Your task to perform on an android device: Open Yahoo.com Image 0: 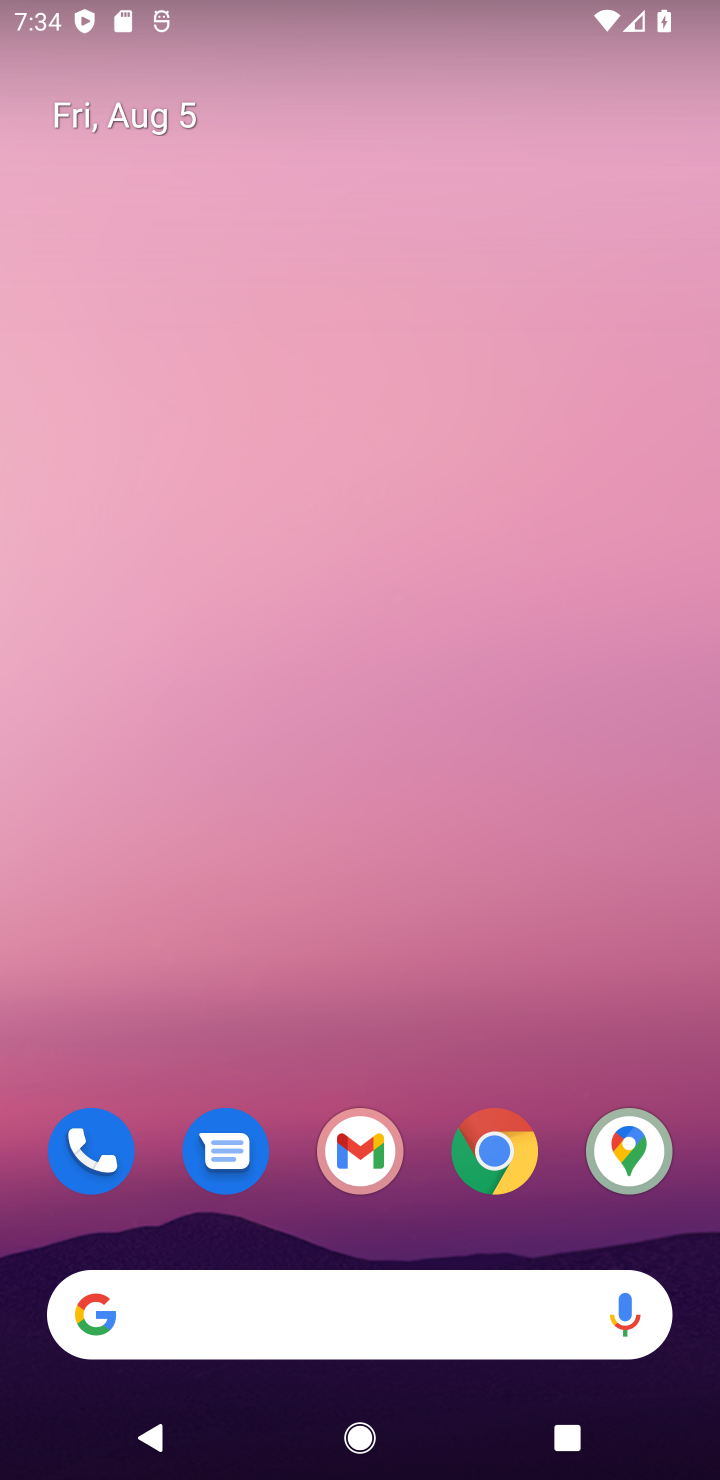
Step 0: click (504, 1166)
Your task to perform on an android device: Open Yahoo.com Image 1: 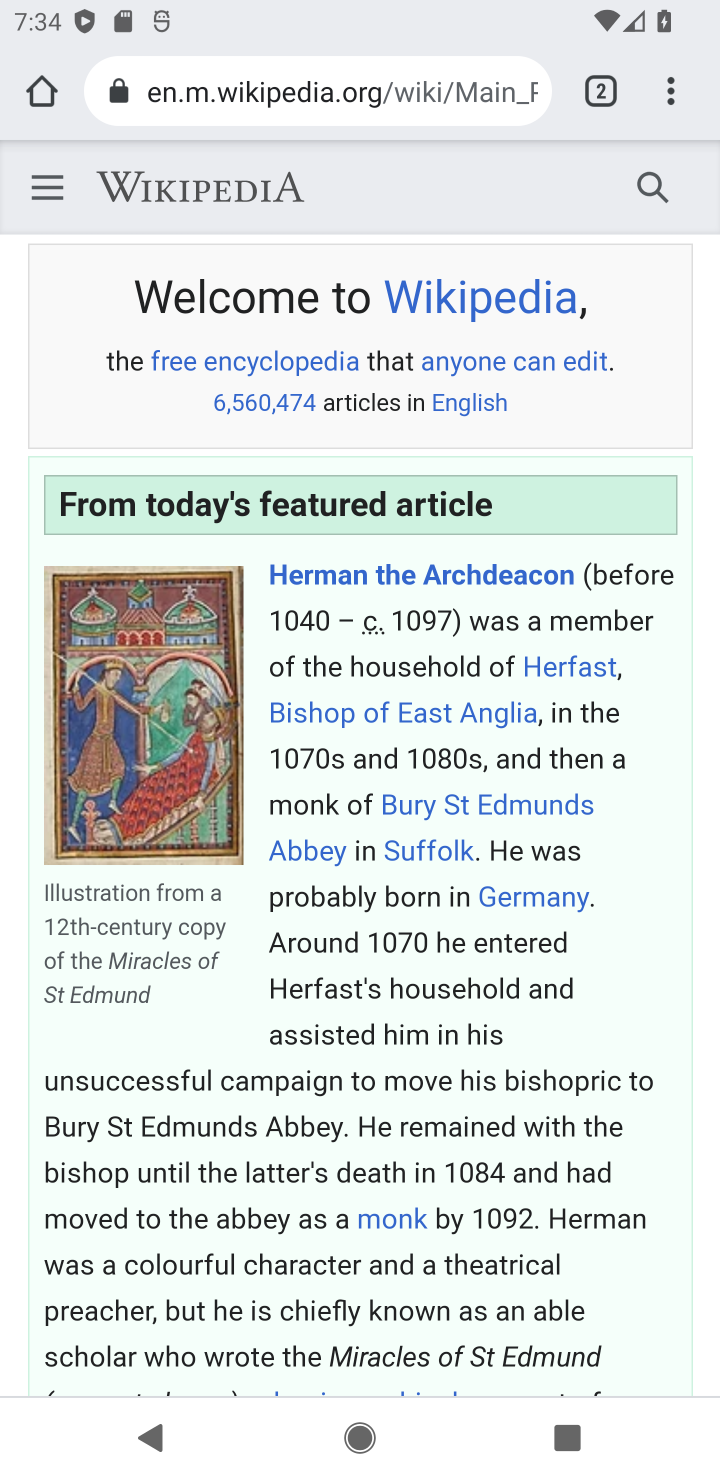
Step 1: click (595, 88)
Your task to perform on an android device: Open Yahoo.com Image 2: 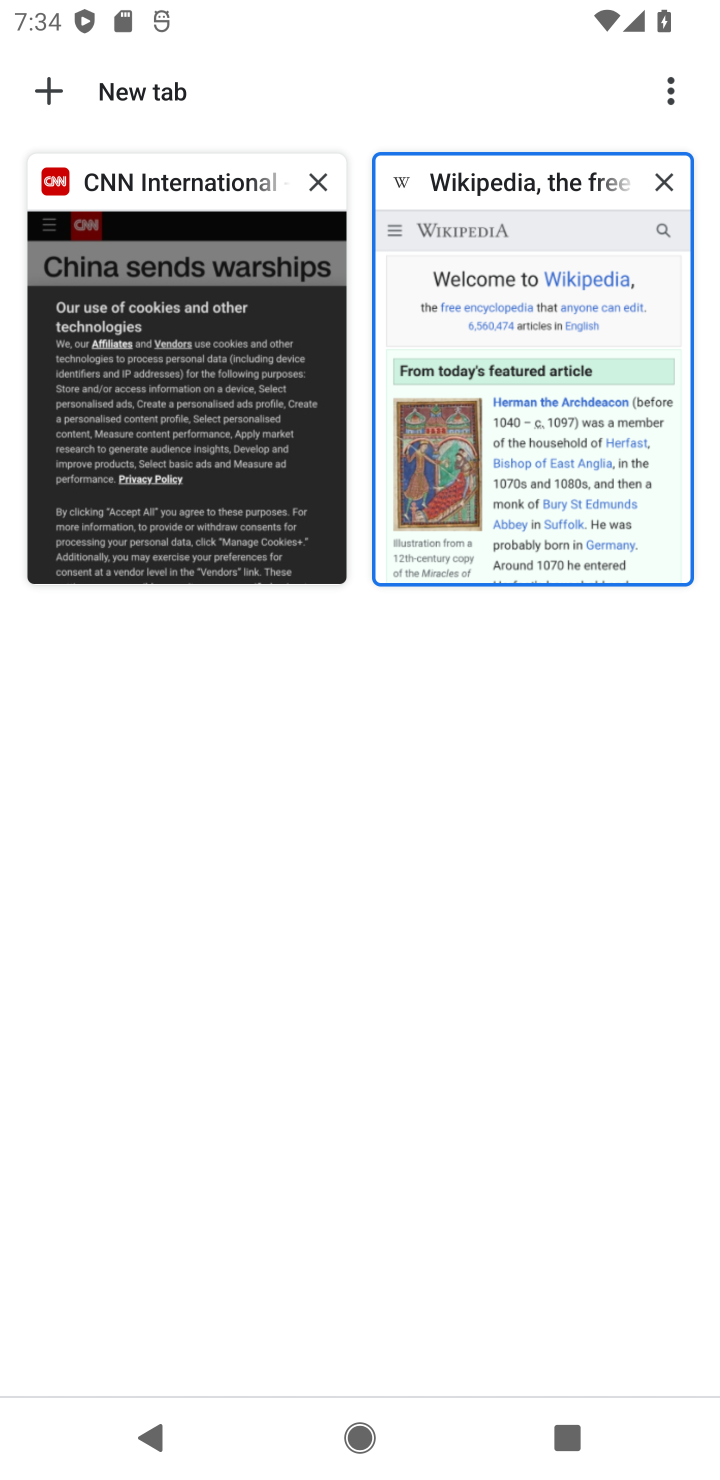
Step 2: click (54, 78)
Your task to perform on an android device: Open Yahoo.com Image 3: 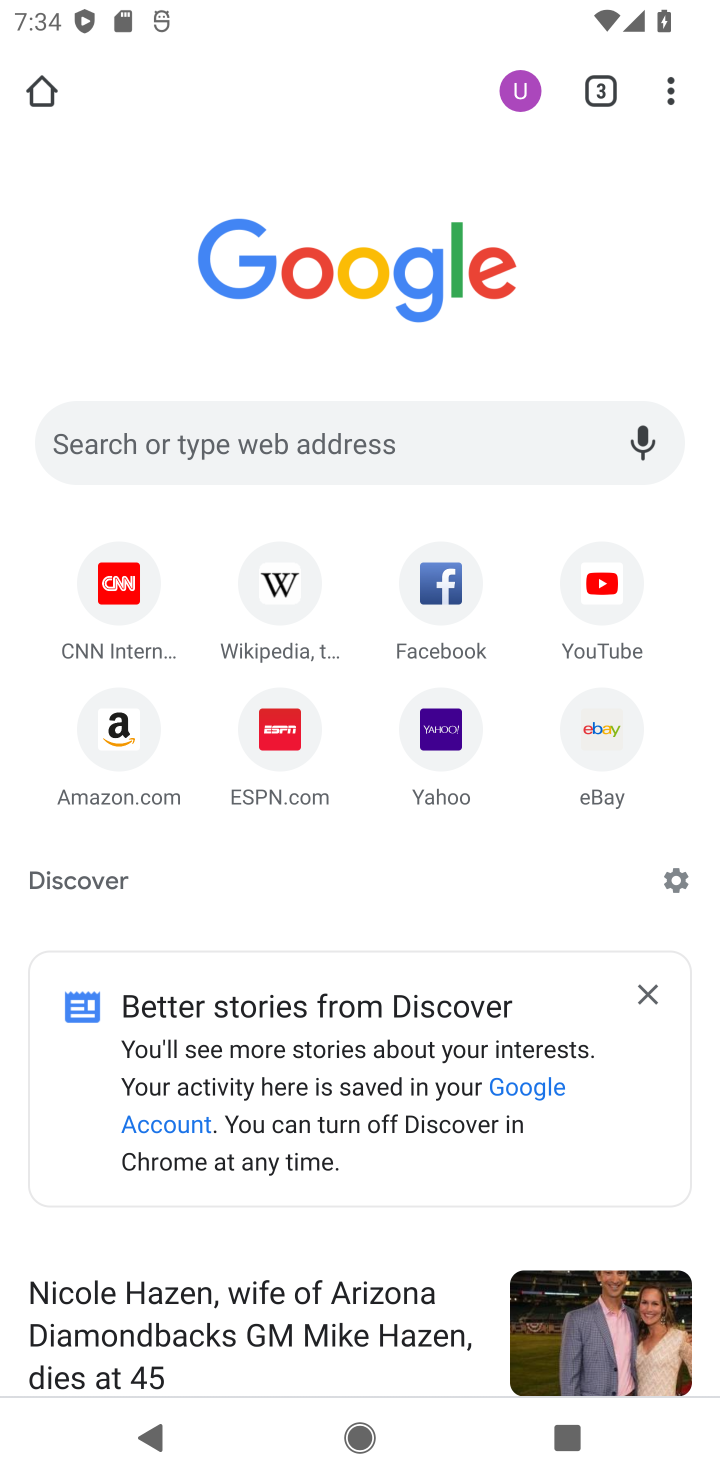
Step 3: click (432, 746)
Your task to perform on an android device: Open Yahoo.com Image 4: 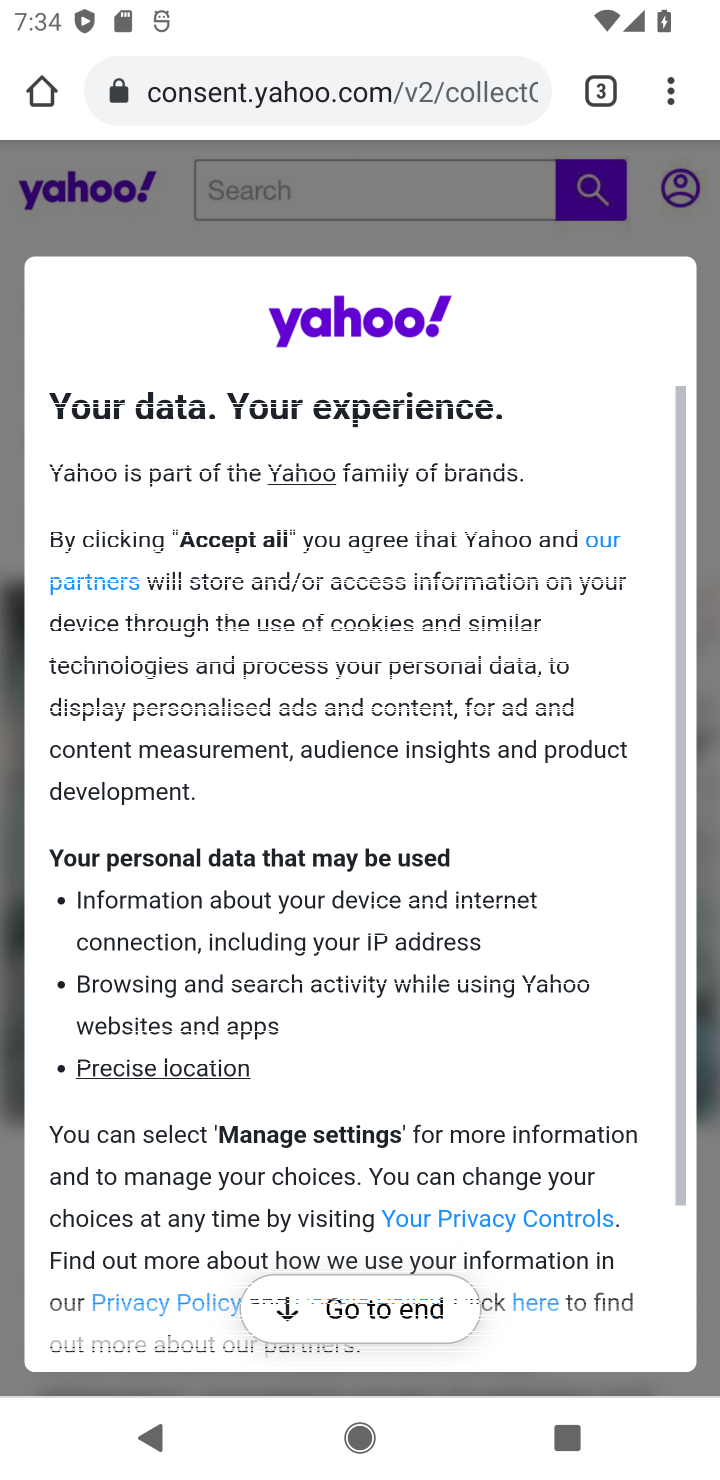
Step 4: click (418, 1325)
Your task to perform on an android device: Open Yahoo.com Image 5: 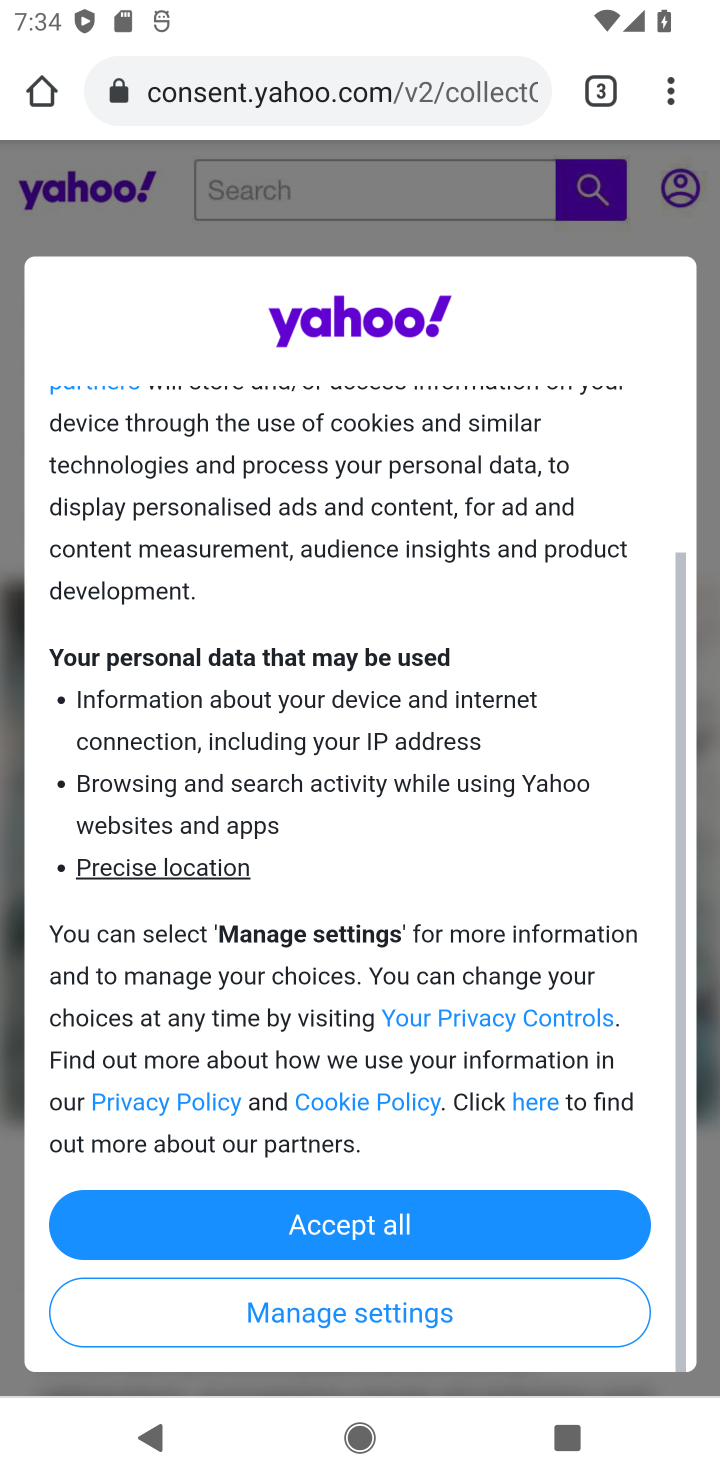
Step 5: click (401, 1237)
Your task to perform on an android device: Open Yahoo.com Image 6: 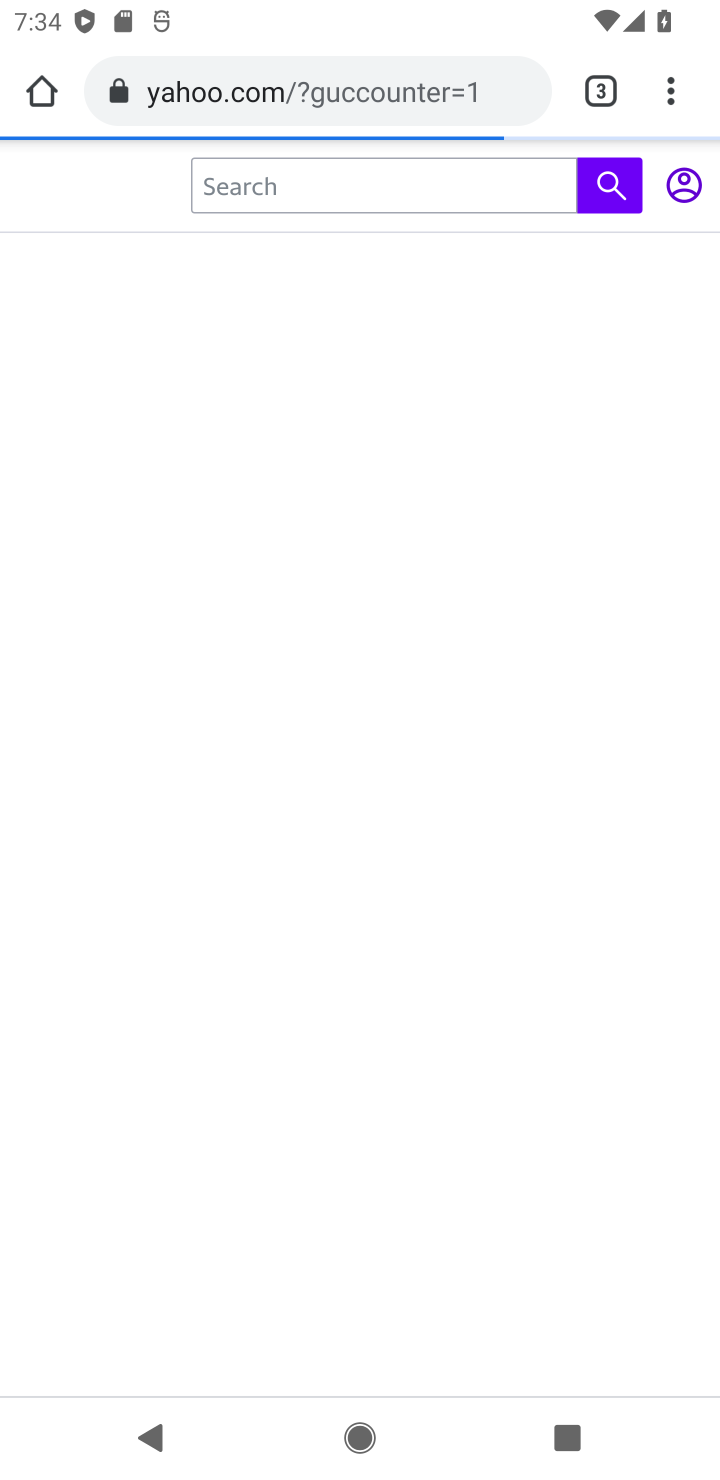
Step 6: task complete